Your task to perform on an android device: turn on improve location accuracy Image 0: 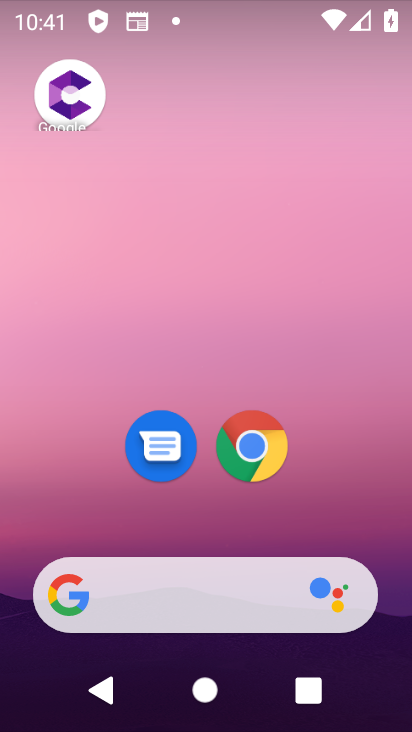
Step 0: drag from (110, 557) to (148, 160)
Your task to perform on an android device: turn on improve location accuracy Image 1: 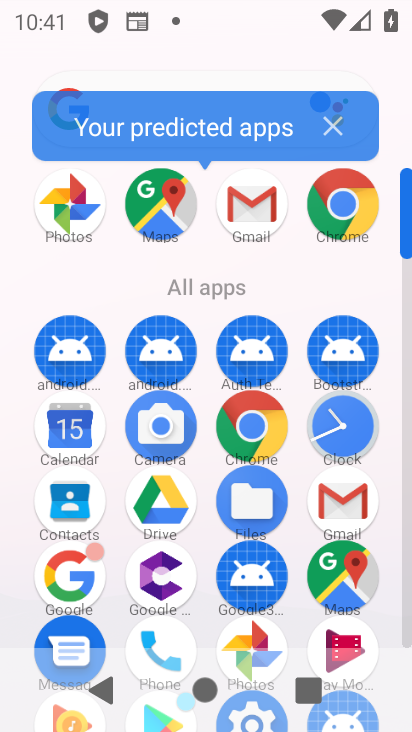
Step 1: drag from (155, 600) to (248, 291)
Your task to perform on an android device: turn on improve location accuracy Image 2: 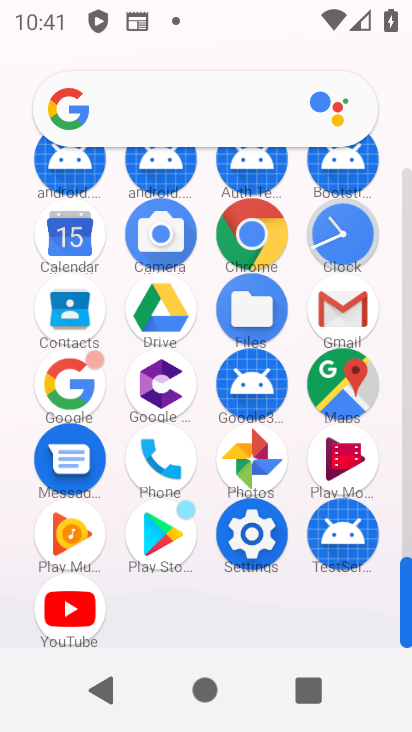
Step 2: click (249, 542)
Your task to perform on an android device: turn on improve location accuracy Image 3: 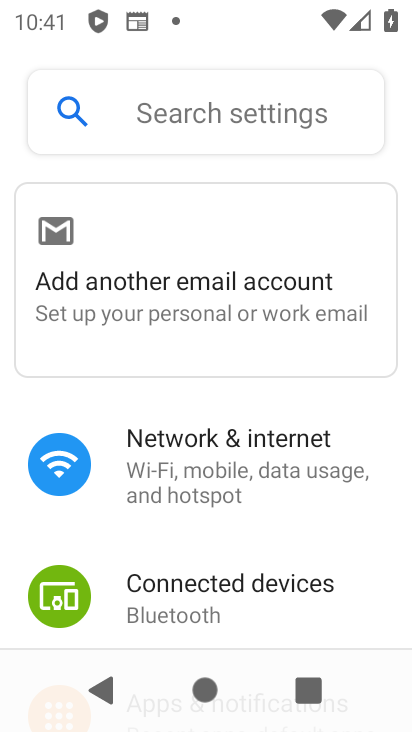
Step 3: drag from (176, 585) to (268, 237)
Your task to perform on an android device: turn on improve location accuracy Image 4: 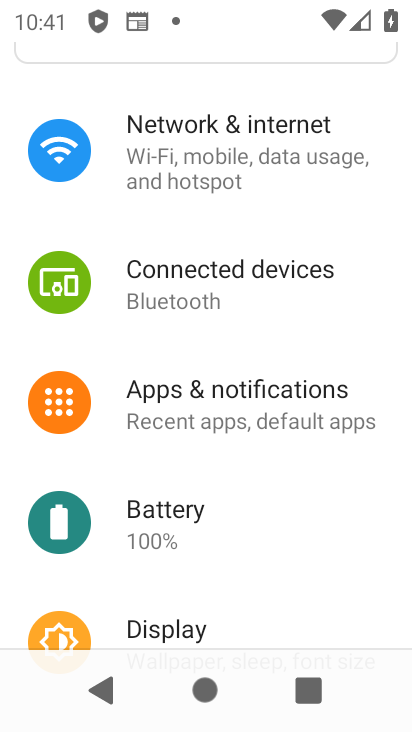
Step 4: drag from (218, 581) to (356, 196)
Your task to perform on an android device: turn on improve location accuracy Image 5: 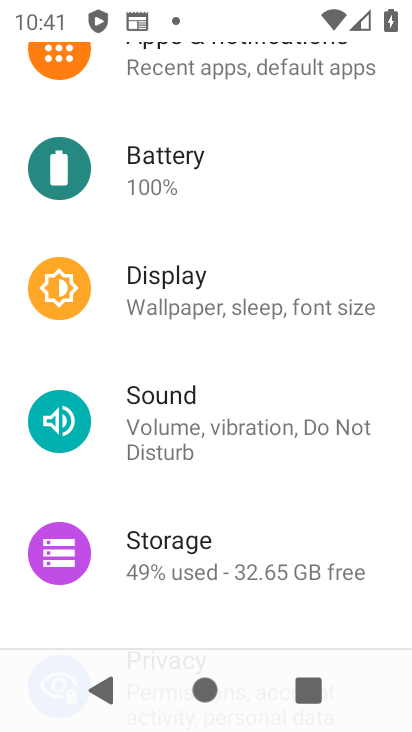
Step 5: drag from (230, 521) to (295, 183)
Your task to perform on an android device: turn on improve location accuracy Image 6: 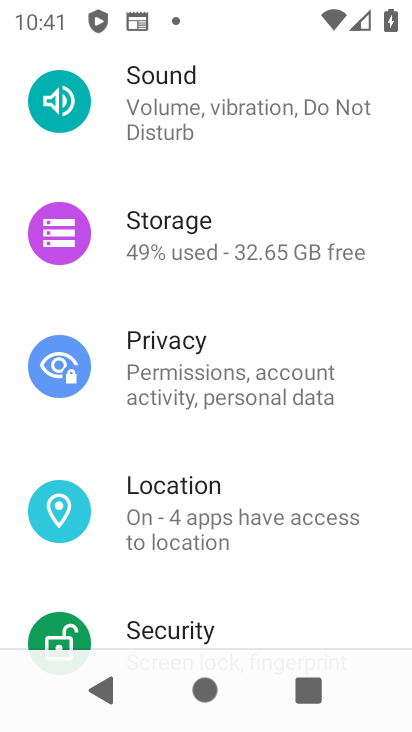
Step 6: click (210, 499)
Your task to perform on an android device: turn on improve location accuracy Image 7: 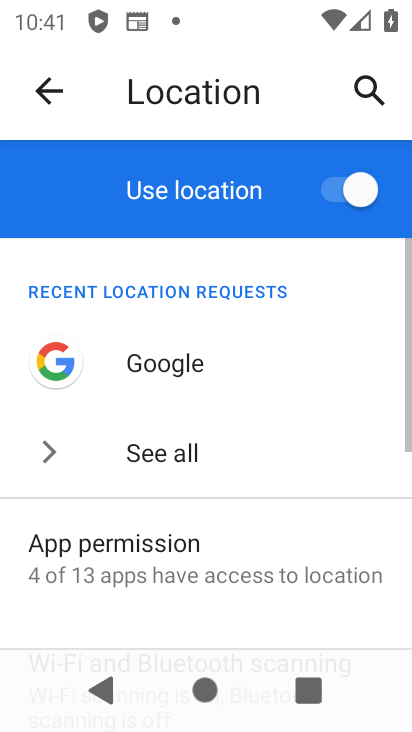
Step 7: drag from (200, 591) to (250, 318)
Your task to perform on an android device: turn on improve location accuracy Image 8: 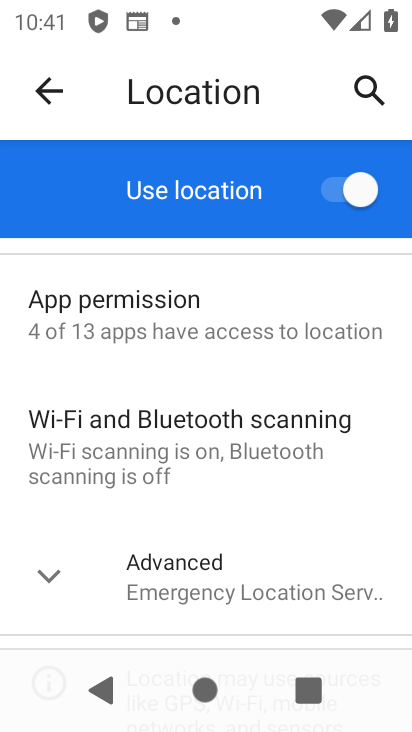
Step 8: click (263, 600)
Your task to perform on an android device: turn on improve location accuracy Image 9: 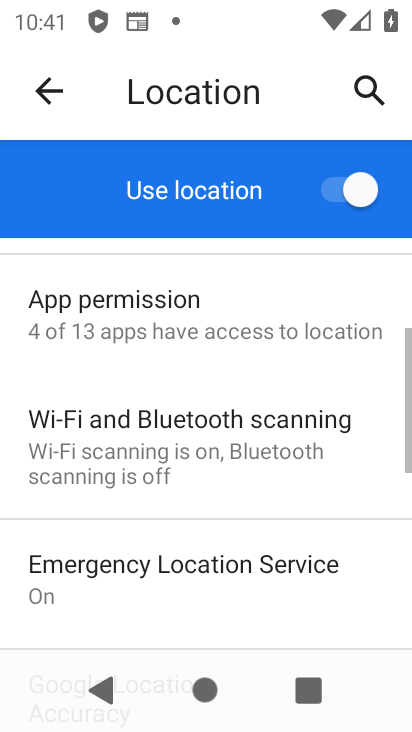
Step 9: drag from (261, 594) to (300, 270)
Your task to perform on an android device: turn on improve location accuracy Image 10: 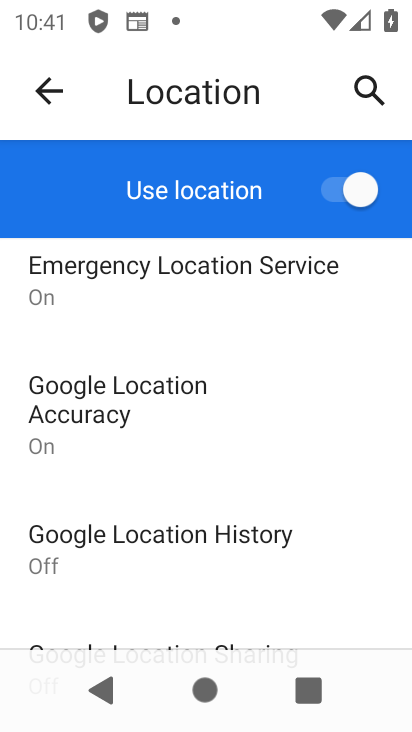
Step 10: drag from (264, 563) to (293, 472)
Your task to perform on an android device: turn on improve location accuracy Image 11: 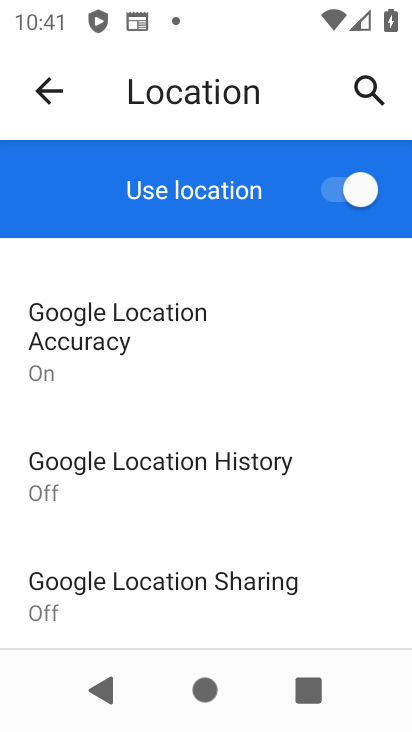
Step 11: click (285, 367)
Your task to perform on an android device: turn on improve location accuracy Image 12: 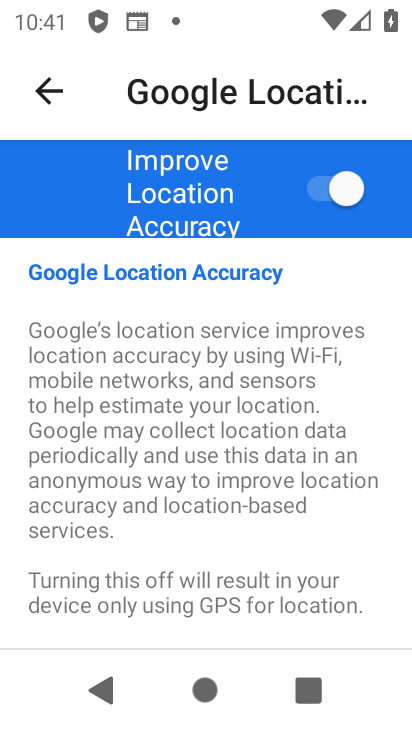
Step 12: task complete